Your task to perform on an android device: see sites visited before in the chrome app Image 0: 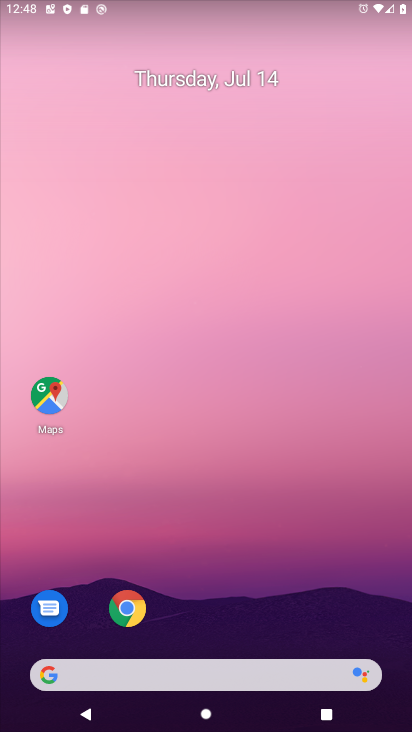
Step 0: click (128, 609)
Your task to perform on an android device: see sites visited before in the chrome app Image 1: 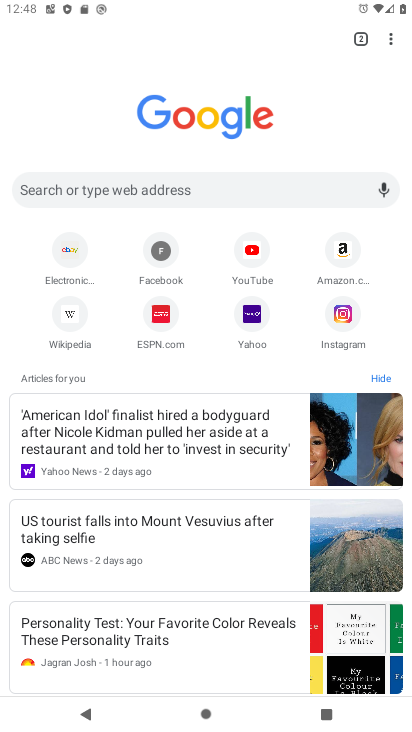
Step 1: click (390, 40)
Your task to perform on an android device: see sites visited before in the chrome app Image 2: 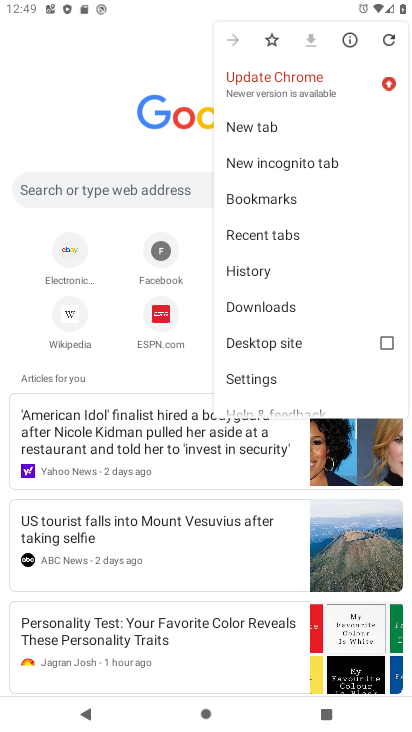
Step 2: click (263, 273)
Your task to perform on an android device: see sites visited before in the chrome app Image 3: 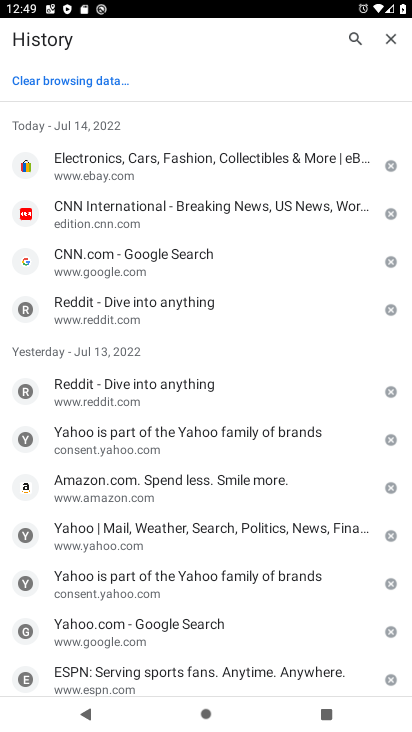
Step 3: task complete